Your task to perform on an android device: Go to network settings Image 0: 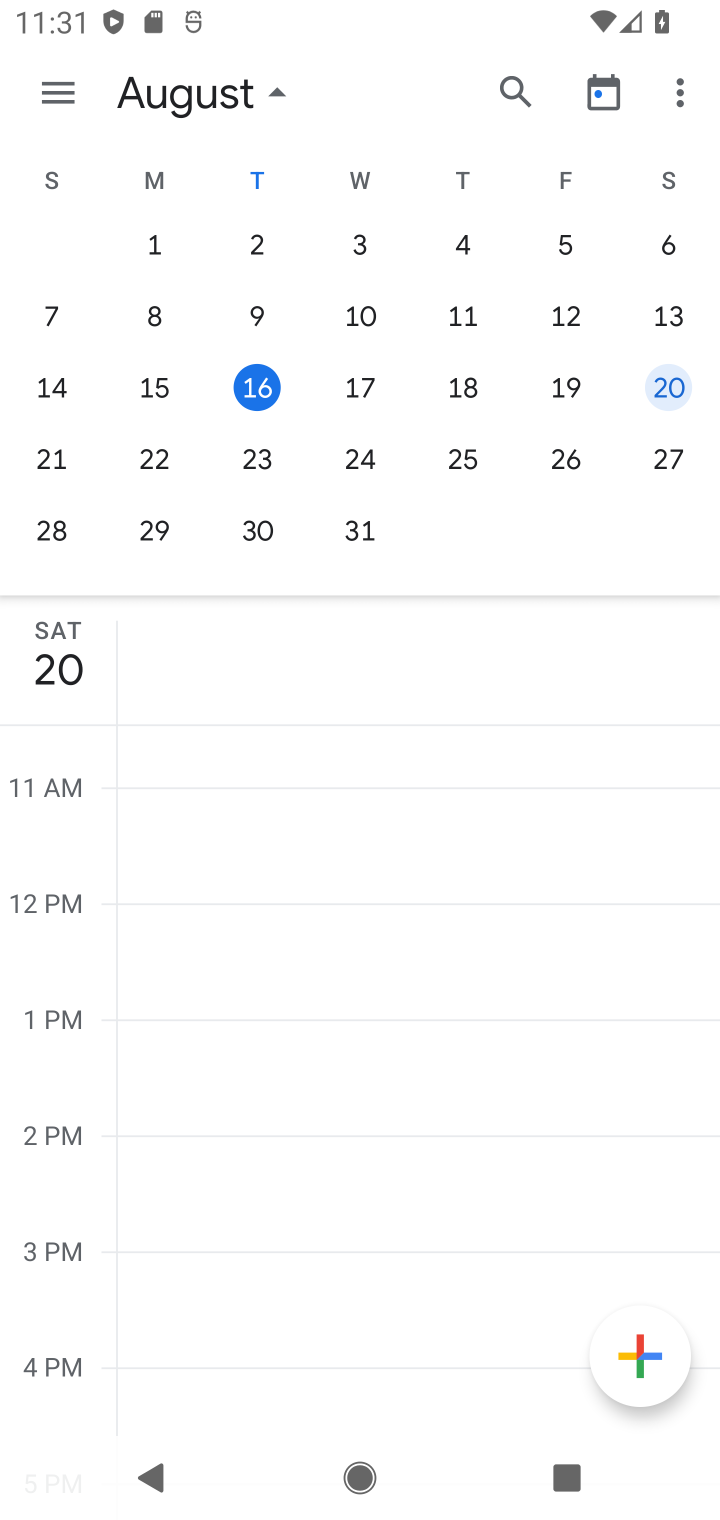
Step 0: press home button
Your task to perform on an android device: Go to network settings Image 1: 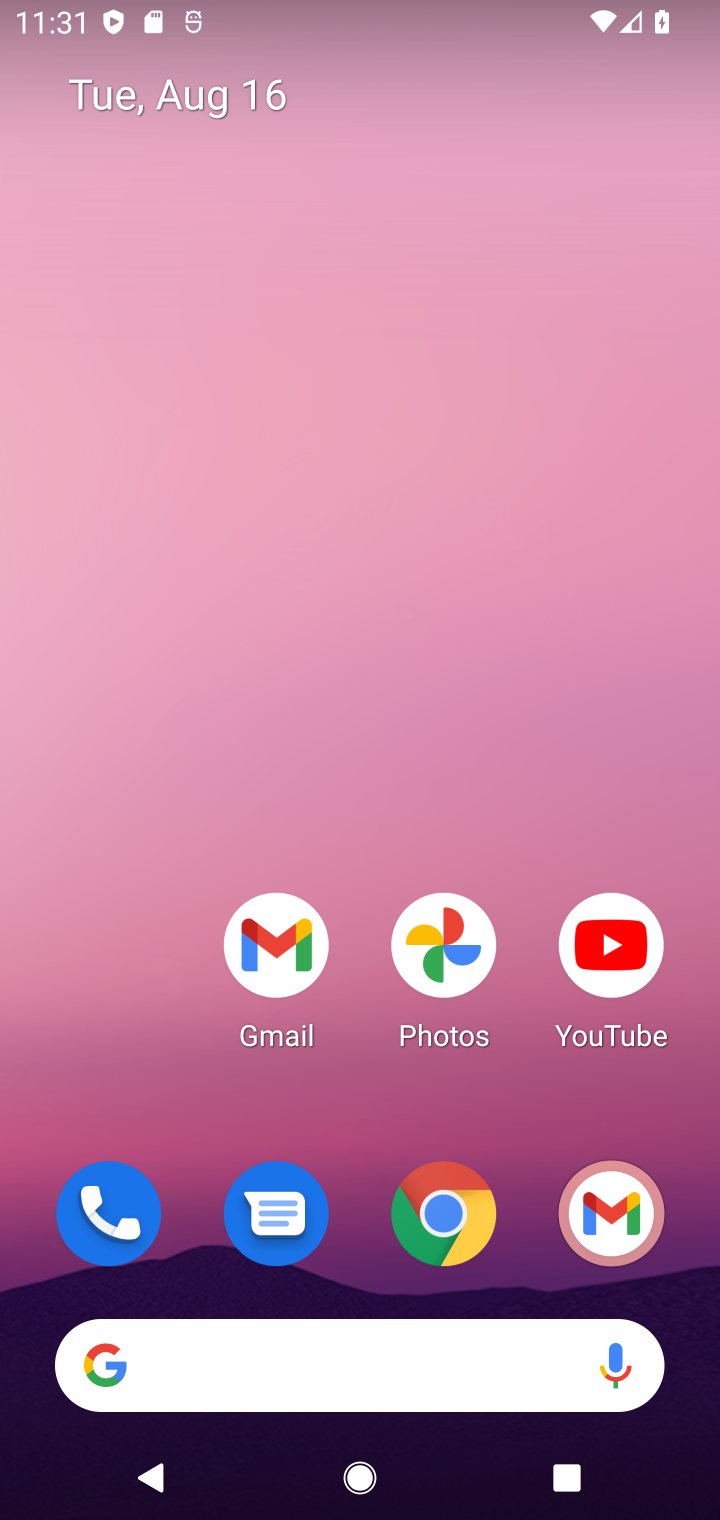
Step 1: drag from (514, 1068) to (546, 14)
Your task to perform on an android device: Go to network settings Image 2: 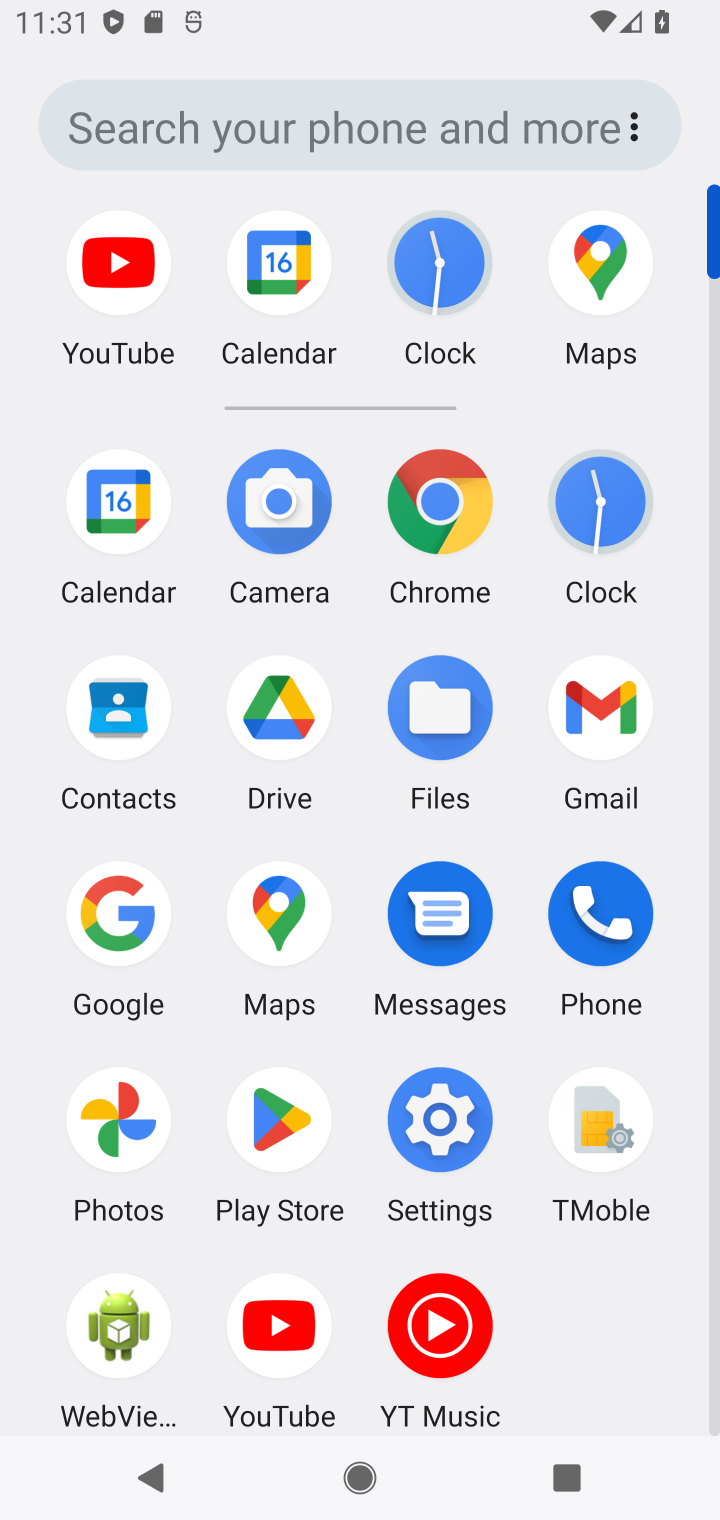
Step 2: click (434, 1129)
Your task to perform on an android device: Go to network settings Image 3: 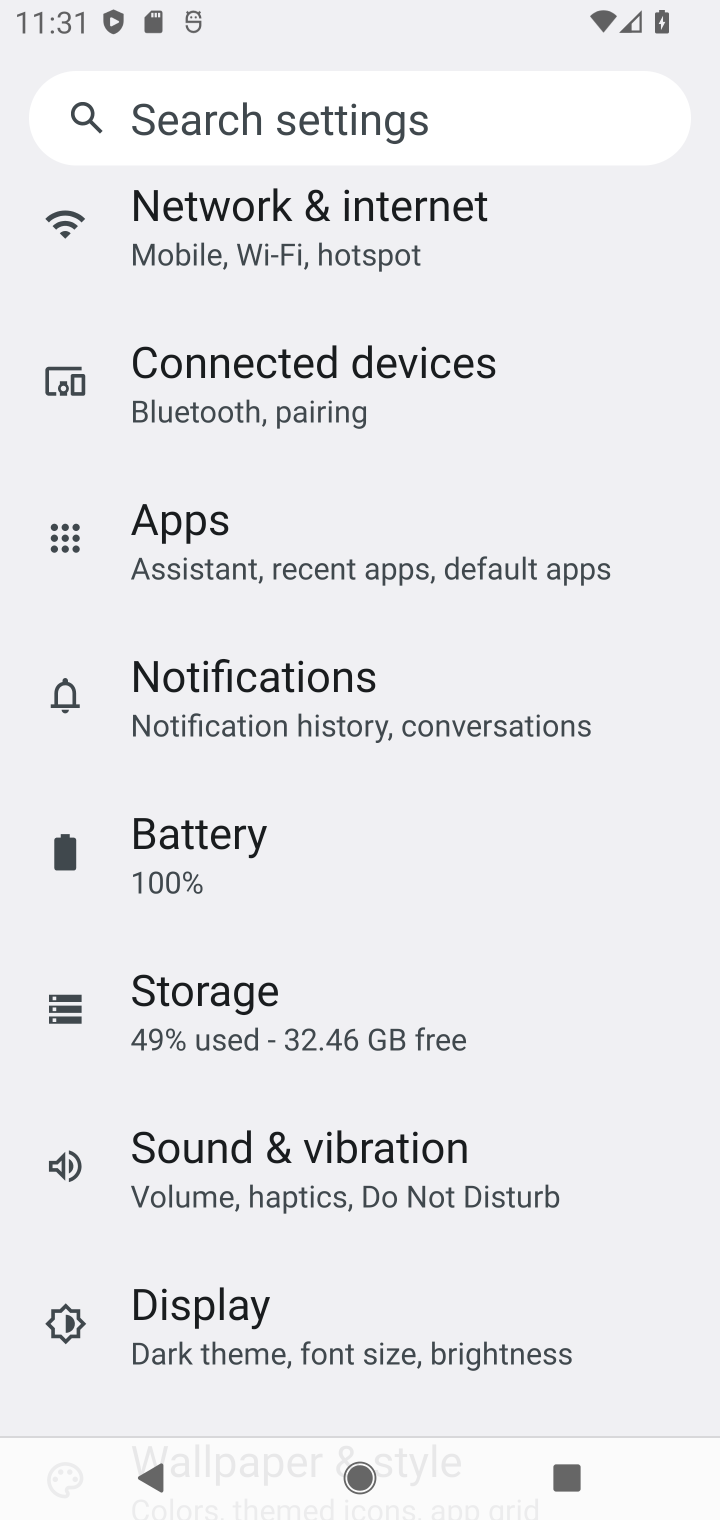
Step 3: click (374, 235)
Your task to perform on an android device: Go to network settings Image 4: 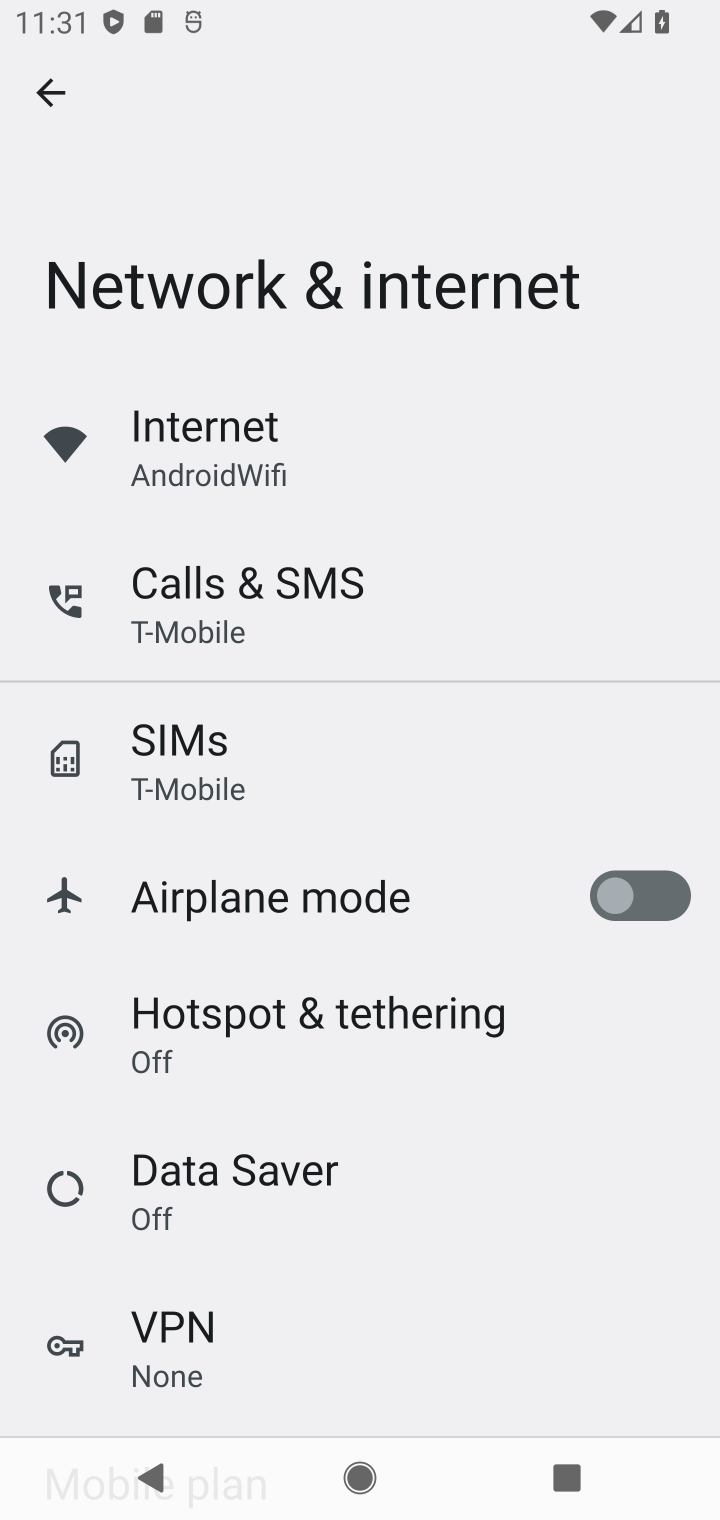
Step 4: task complete